Your task to perform on an android device: Do I have any events this weekend? Image 0: 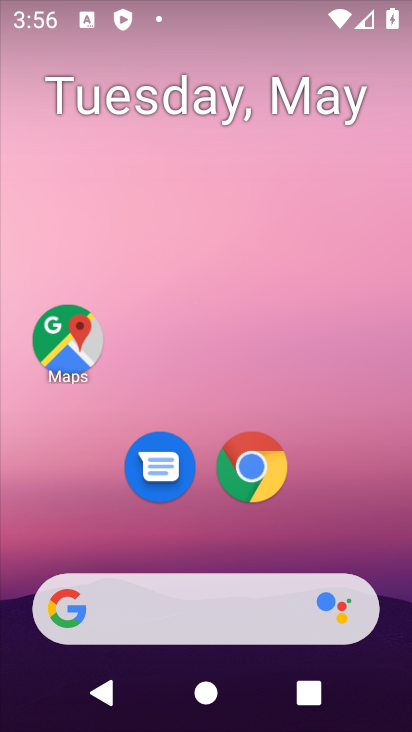
Step 0: task complete